Your task to perform on an android device: turn on showing notifications on the lock screen Image 0: 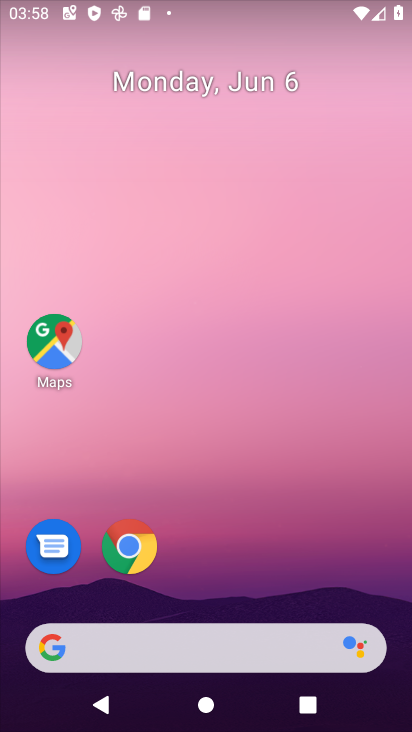
Step 0: drag from (252, 597) to (297, 84)
Your task to perform on an android device: turn on showing notifications on the lock screen Image 1: 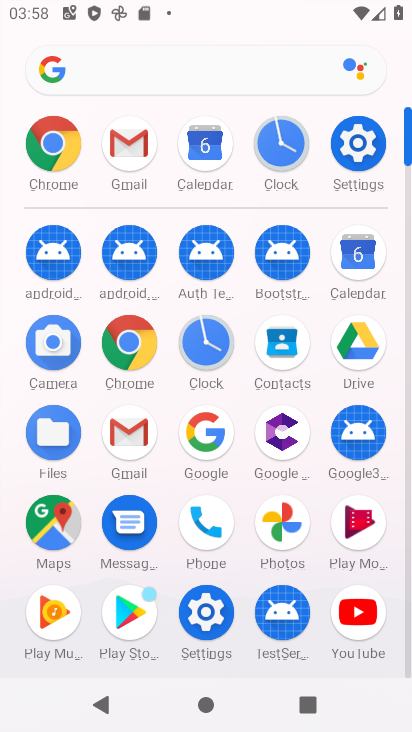
Step 1: click (344, 157)
Your task to perform on an android device: turn on showing notifications on the lock screen Image 2: 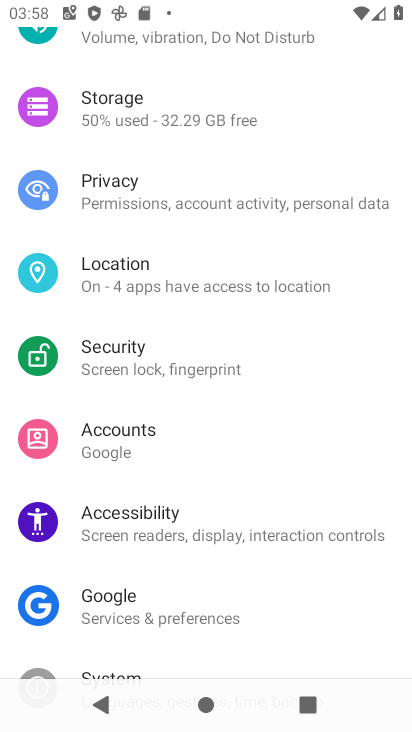
Step 2: drag from (219, 222) to (323, 722)
Your task to perform on an android device: turn on showing notifications on the lock screen Image 3: 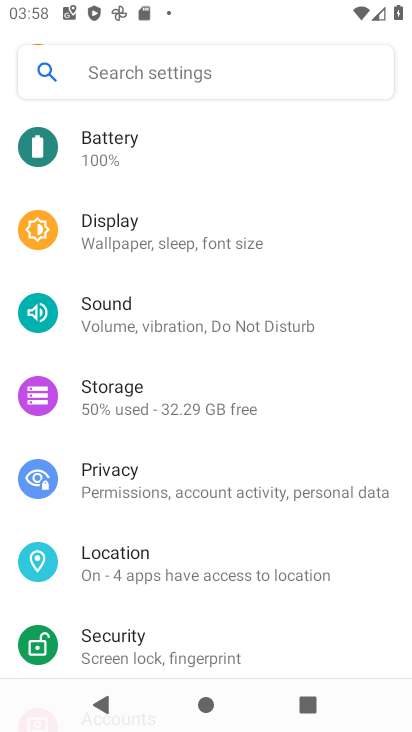
Step 3: drag from (166, 247) to (287, 719)
Your task to perform on an android device: turn on showing notifications on the lock screen Image 4: 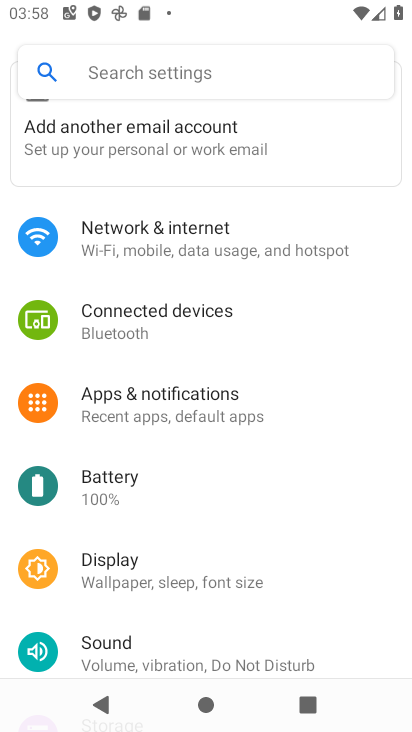
Step 4: click (257, 264)
Your task to perform on an android device: turn on showing notifications on the lock screen Image 5: 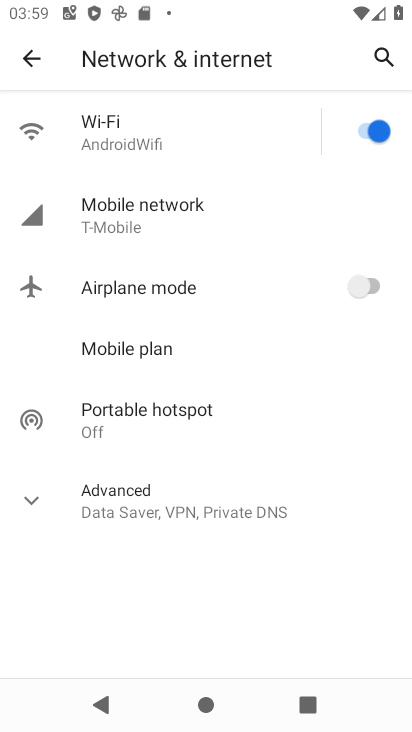
Step 5: task complete